Your task to perform on an android device: add a label to a message in the gmail app Image 0: 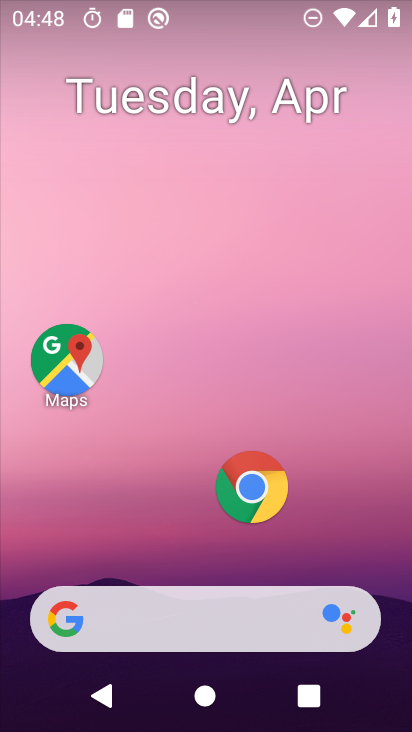
Step 0: drag from (171, 503) to (301, 0)
Your task to perform on an android device: add a label to a message in the gmail app Image 1: 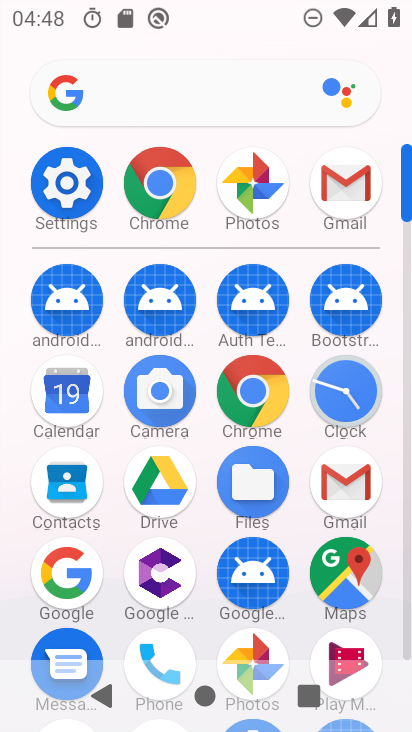
Step 1: click (349, 179)
Your task to perform on an android device: add a label to a message in the gmail app Image 2: 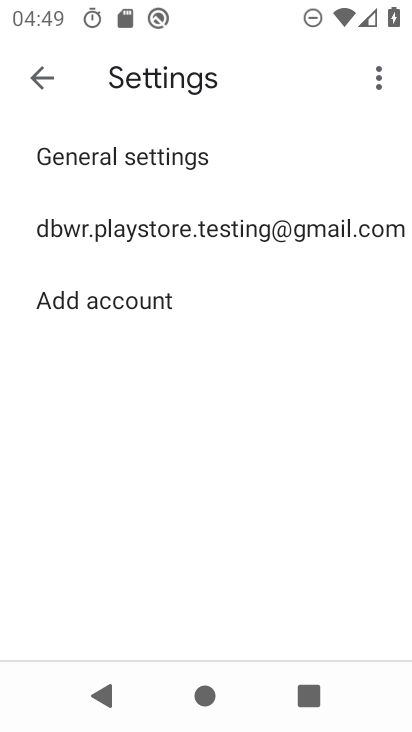
Step 2: click (131, 231)
Your task to perform on an android device: add a label to a message in the gmail app Image 3: 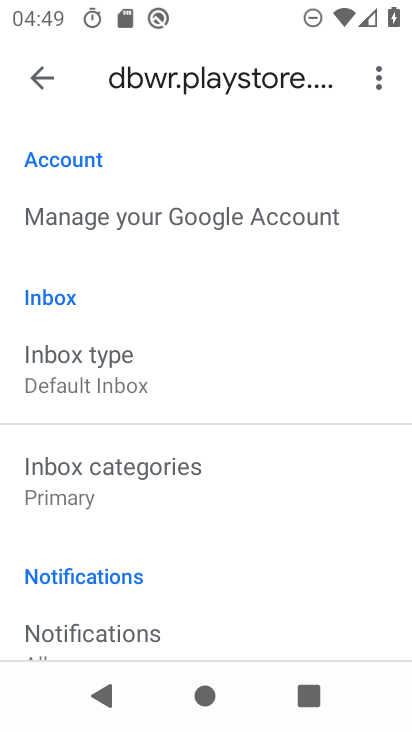
Step 3: click (33, 63)
Your task to perform on an android device: add a label to a message in the gmail app Image 4: 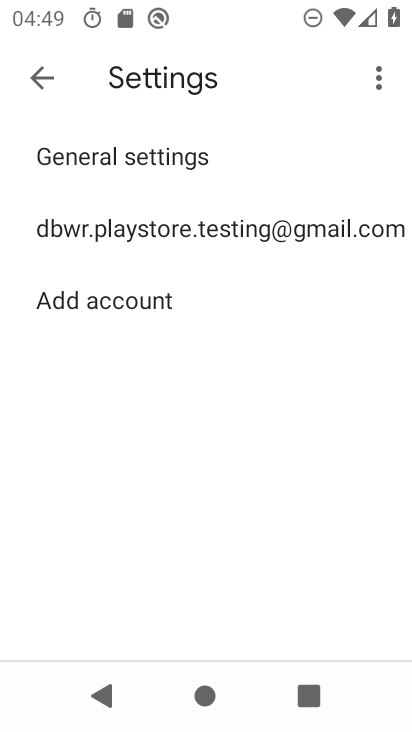
Step 4: click (45, 74)
Your task to perform on an android device: add a label to a message in the gmail app Image 5: 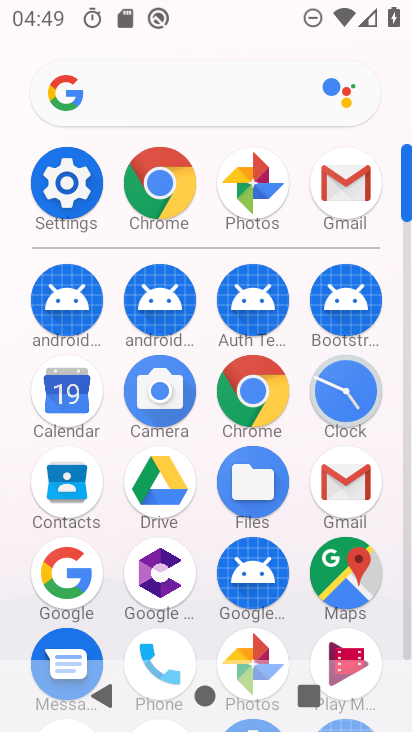
Step 5: click (346, 180)
Your task to perform on an android device: add a label to a message in the gmail app Image 6: 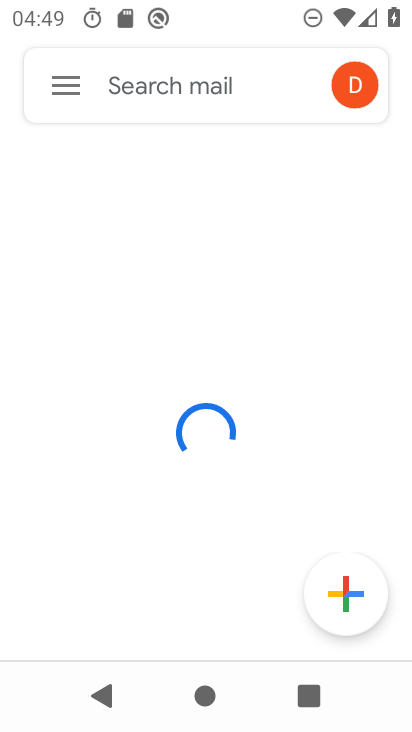
Step 6: click (62, 85)
Your task to perform on an android device: add a label to a message in the gmail app Image 7: 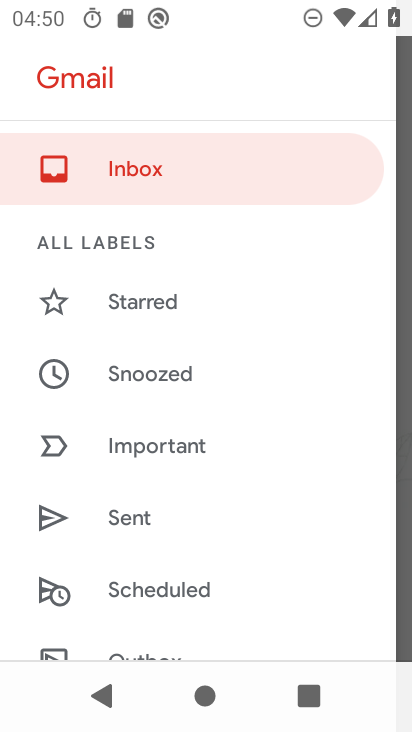
Step 7: drag from (170, 594) to (287, 182)
Your task to perform on an android device: add a label to a message in the gmail app Image 8: 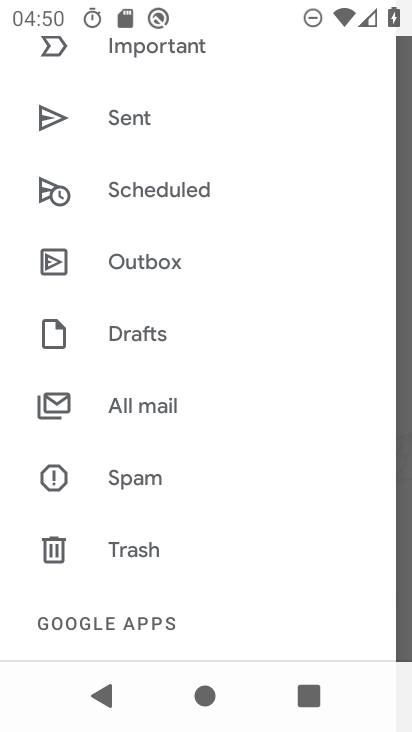
Step 8: click (164, 414)
Your task to perform on an android device: add a label to a message in the gmail app Image 9: 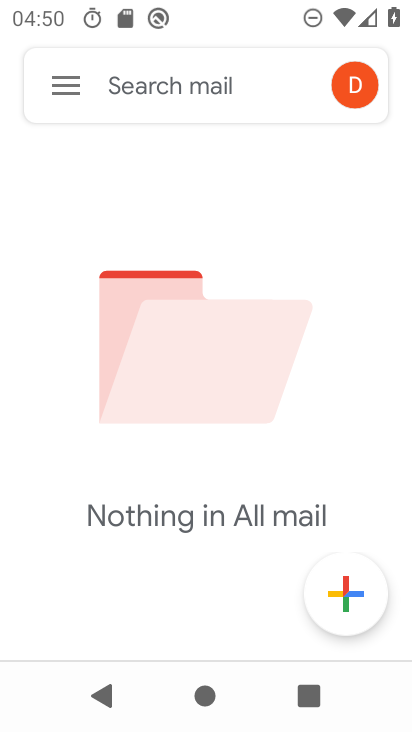
Step 9: task complete